Your task to perform on an android device: search for starred emails in the gmail app Image 0: 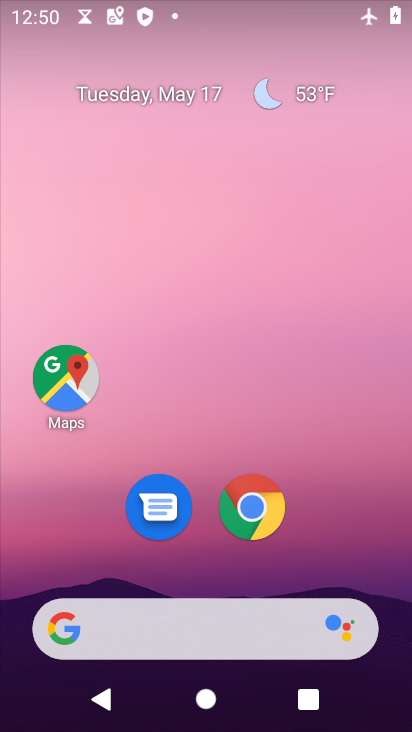
Step 0: drag from (198, 549) to (283, 32)
Your task to perform on an android device: search for starred emails in the gmail app Image 1: 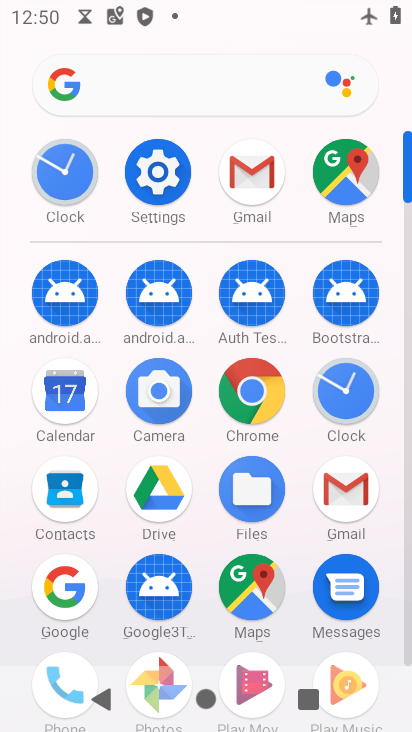
Step 1: click (336, 491)
Your task to perform on an android device: search for starred emails in the gmail app Image 2: 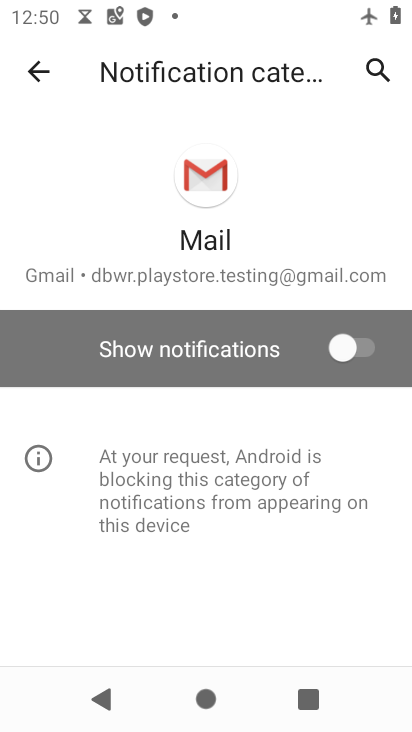
Step 2: click (35, 59)
Your task to perform on an android device: search for starred emails in the gmail app Image 3: 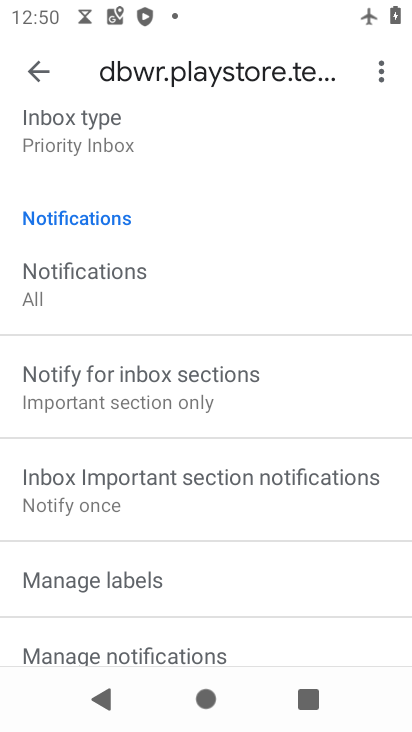
Step 3: click (29, 82)
Your task to perform on an android device: search for starred emails in the gmail app Image 4: 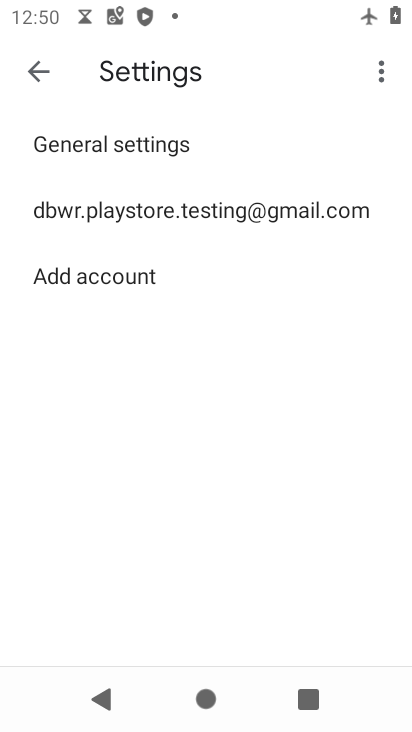
Step 4: click (34, 72)
Your task to perform on an android device: search for starred emails in the gmail app Image 5: 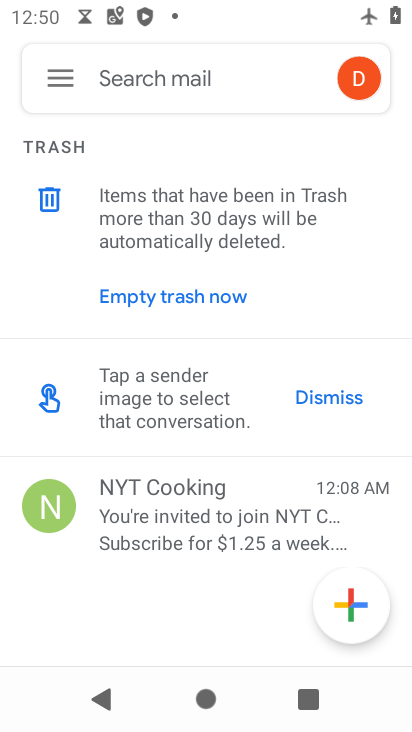
Step 5: click (54, 79)
Your task to perform on an android device: search for starred emails in the gmail app Image 6: 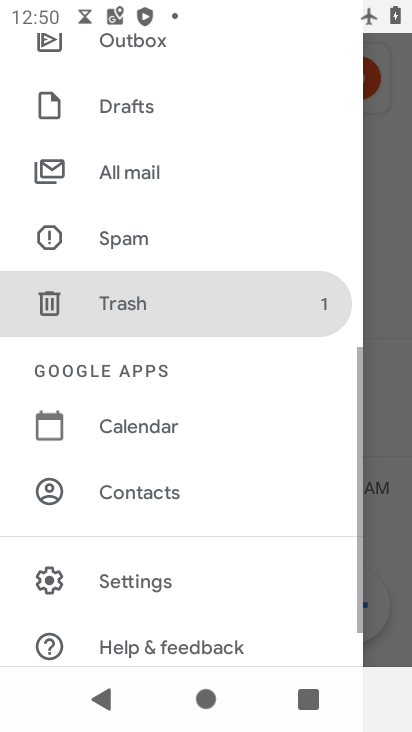
Step 6: drag from (155, 153) to (217, 369)
Your task to perform on an android device: search for starred emails in the gmail app Image 7: 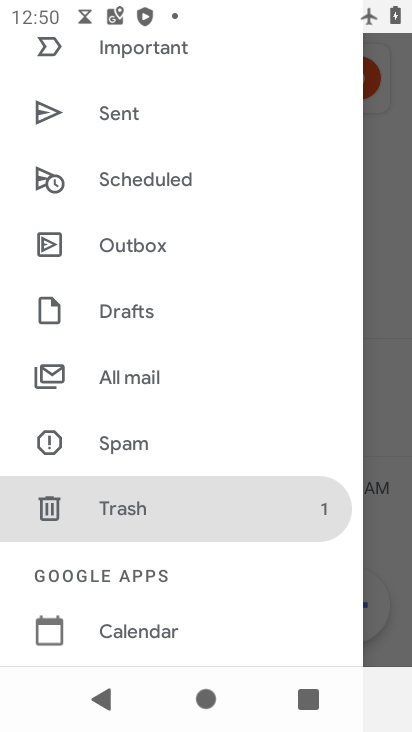
Step 7: drag from (174, 158) to (184, 333)
Your task to perform on an android device: search for starred emails in the gmail app Image 8: 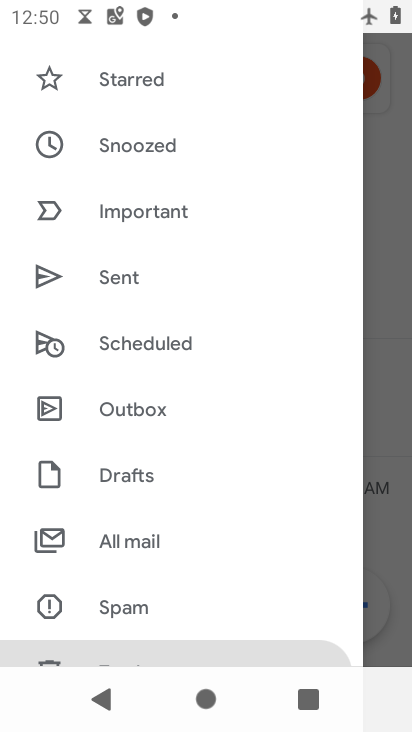
Step 8: click (154, 93)
Your task to perform on an android device: search for starred emails in the gmail app Image 9: 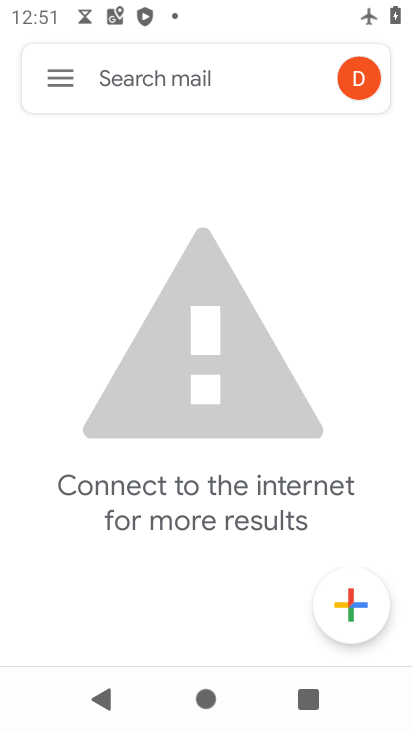
Step 9: task complete